Your task to perform on an android device: turn on improve location accuracy Image 0: 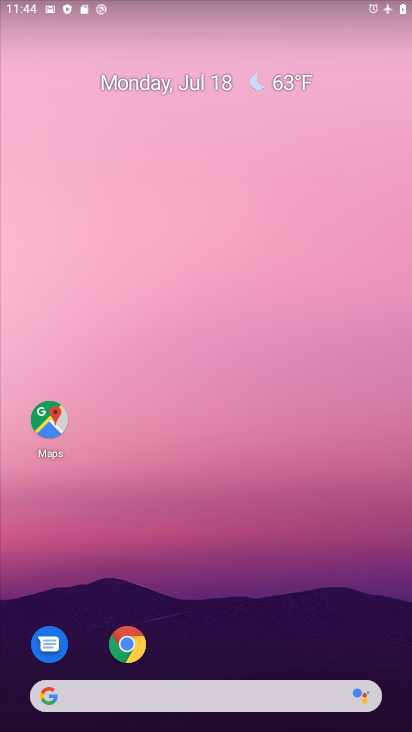
Step 0: drag from (204, 625) to (177, 185)
Your task to perform on an android device: turn on improve location accuracy Image 1: 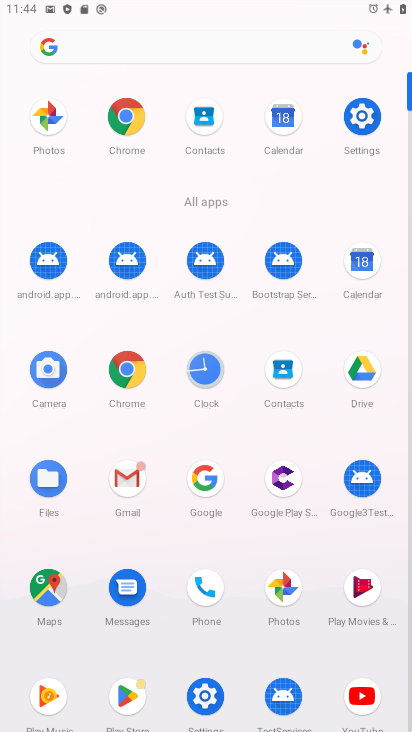
Step 1: click (353, 118)
Your task to perform on an android device: turn on improve location accuracy Image 2: 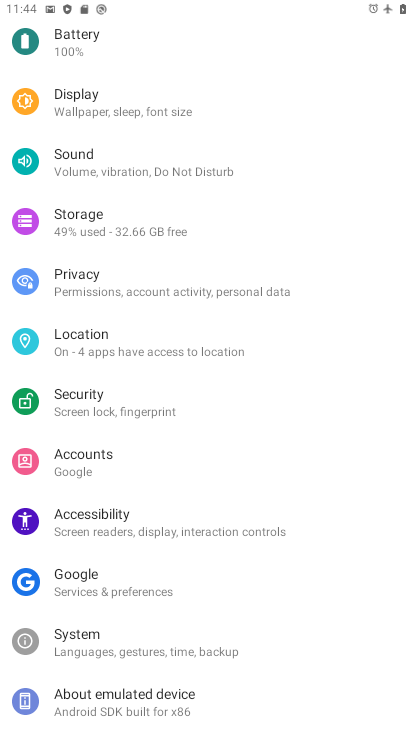
Step 2: click (68, 325)
Your task to perform on an android device: turn on improve location accuracy Image 3: 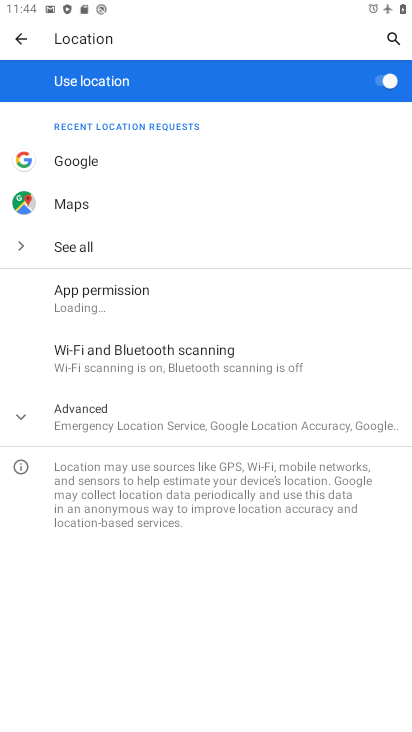
Step 3: click (19, 415)
Your task to perform on an android device: turn on improve location accuracy Image 4: 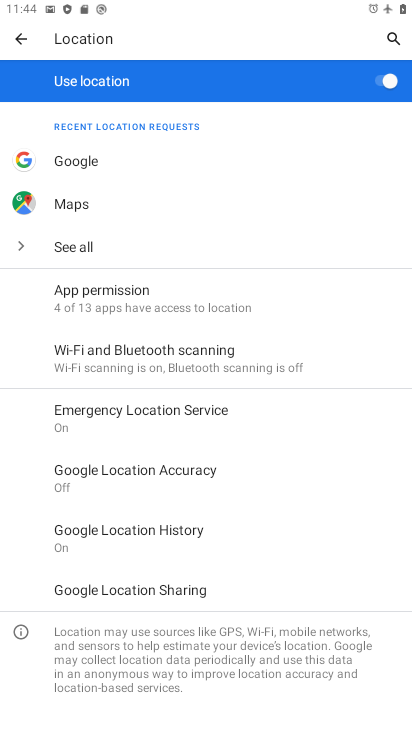
Step 4: click (138, 468)
Your task to perform on an android device: turn on improve location accuracy Image 5: 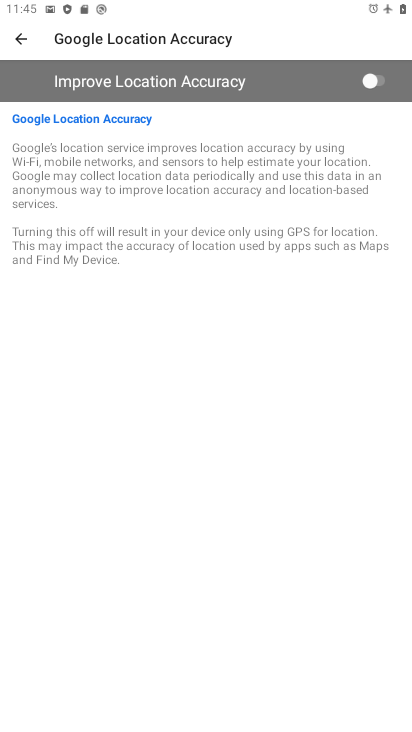
Step 5: click (375, 59)
Your task to perform on an android device: turn on improve location accuracy Image 6: 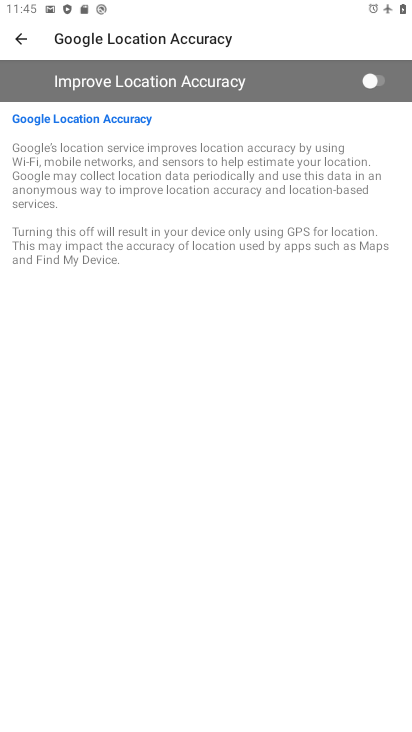
Step 6: click (368, 83)
Your task to perform on an android device: turn on improve location accuracy Image 7: 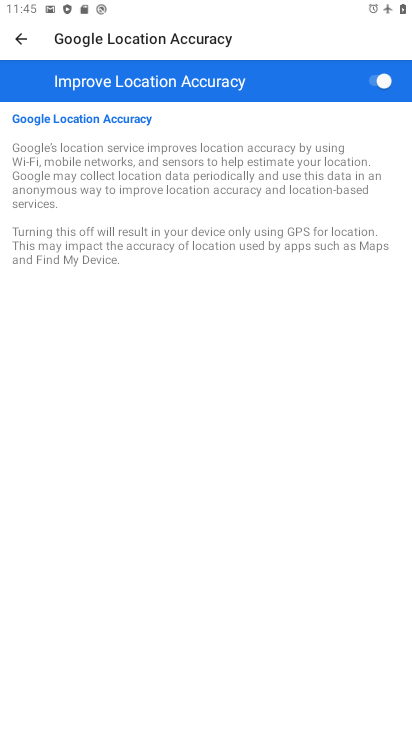
Step 7: task complete